Your task to perform on an android device: change notification settings in the gmail app Image 0: 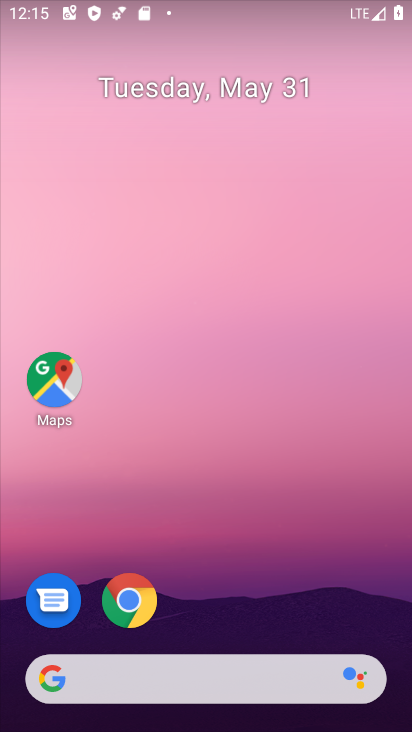
Step 0: drag from (219, 676) to (219, 124)
Your task to perform on an android device: change notification settings in the gmail app Image 1: 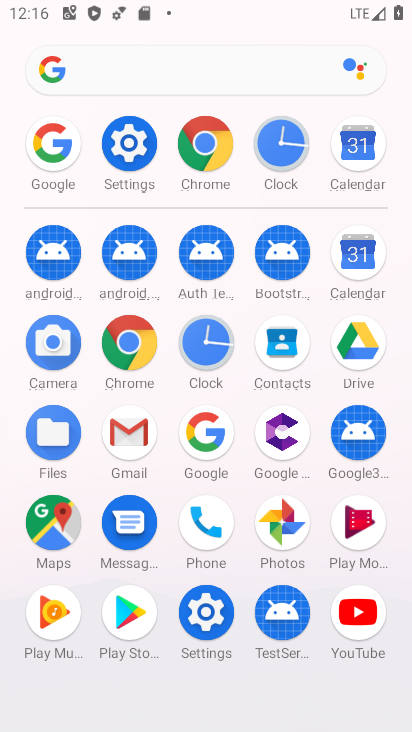
Step 1: click (131, 442)
Your task to perform on an android device: change notification settings in the gmail app Image 2: 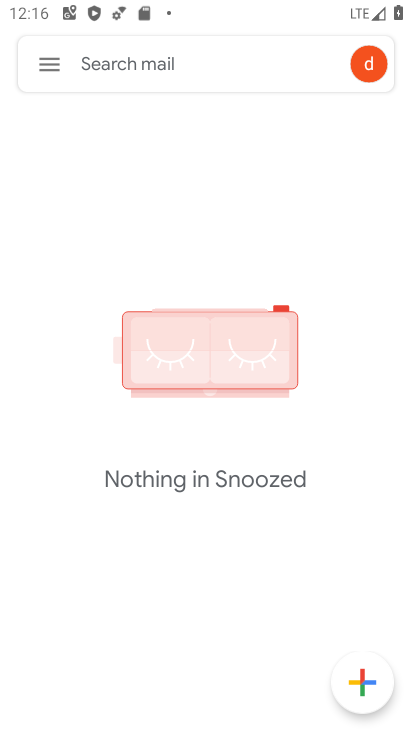
Step 2: click (44, 66)
Your task to perform on an android device: change notification settings in the gmail app Image 3: 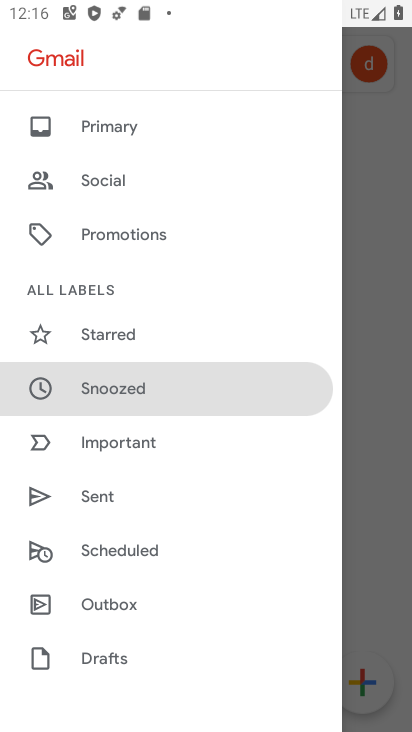
Step 3: drag from (159, 694) to (162, 224)
Your task to perform on an android device: change notification settings in the gmail app Image 4: 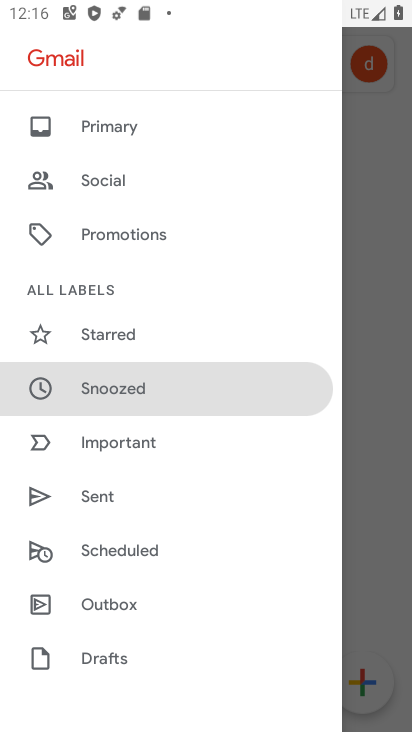
Step 4: drag from (165, 650) to (155, 301)
Your task to perform on an android device: change notification settings in the gmail app Image 5: 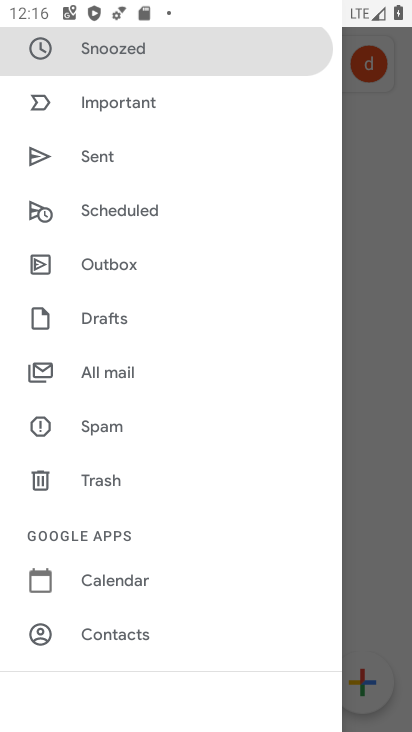
Step 5: drag from (123, 618) to (124, 569)
Your task to perform on an android device: change notification settings in the gmail app Image 6: 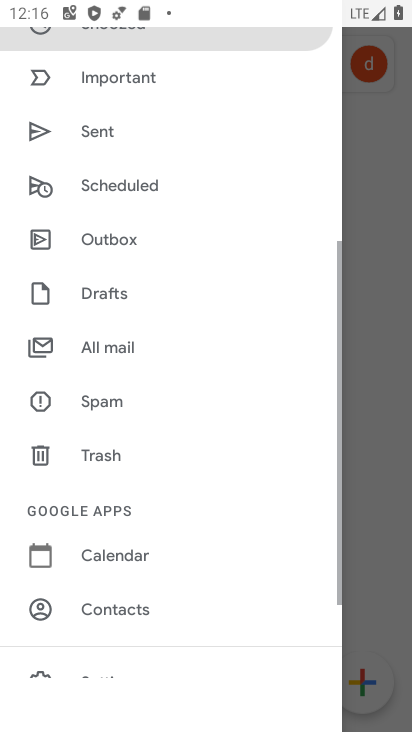
Step 6: drag from (126, 400) to (124, 171)
Your task to perform on an android device: change notification settings in the gmail app Image 7: 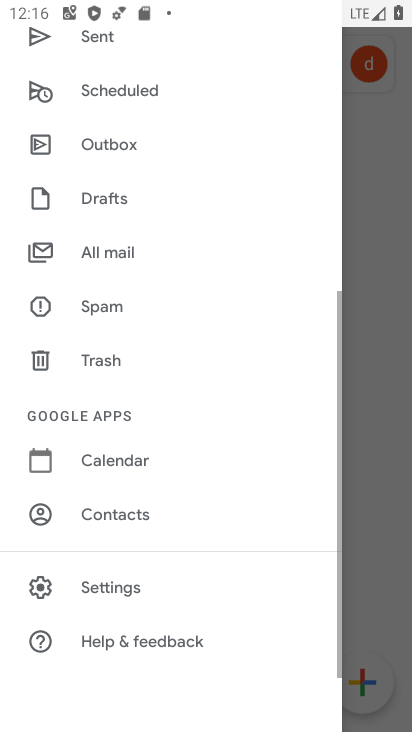
Step 7: click (119, 583)
Your task to perform on an android device: change notification settings in the gmail app Image 8: 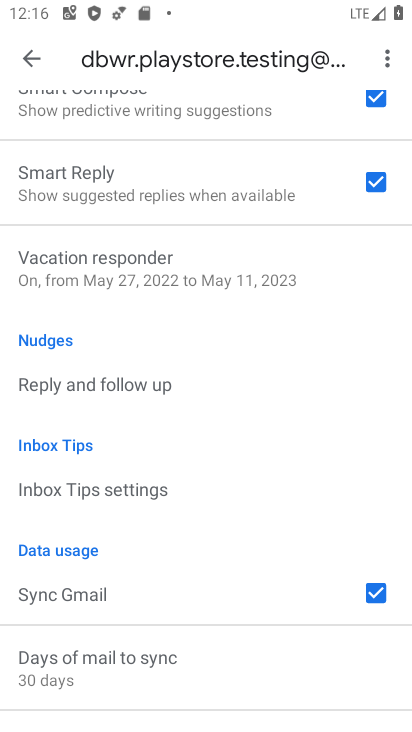
Step 8: drag from (157, 152) to (162, 639)
Your task to perform on an android device: change notification settings in the gmail app Image 9: 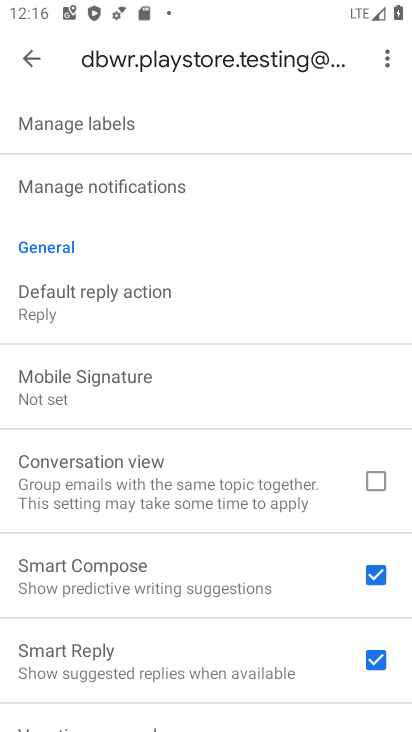
Step 9: drag from (198, 160) to (196, 534)
Your task to perform on an android device: change notification settings in the gmail app Image 10: 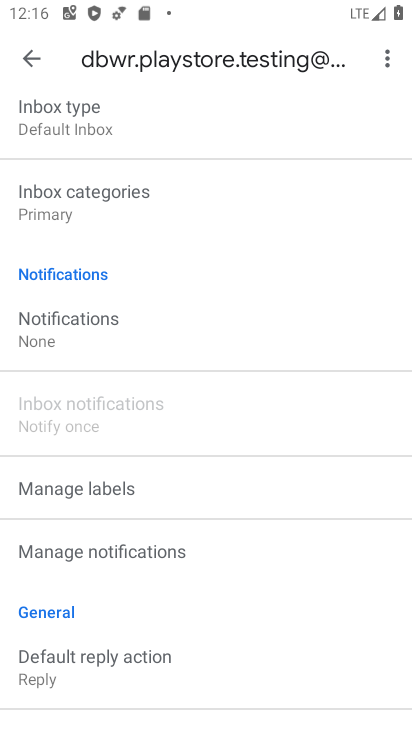
Step 10: click (58, 324)
Your task to perform on an android device: change notification settings in the gmail app Image 11: 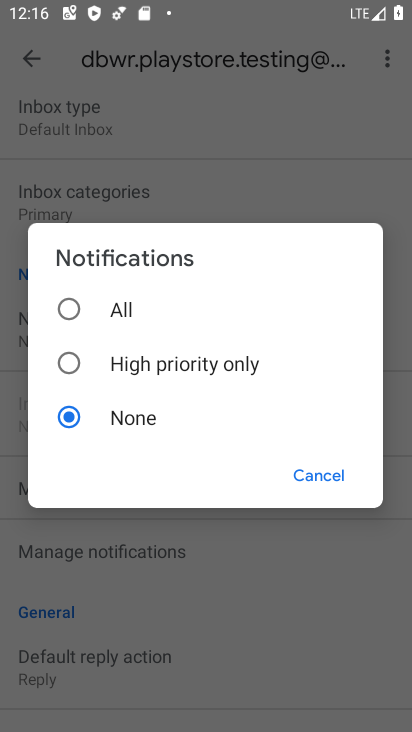
Step 11: click (65, 309)
Your task to perform on an android device: change notification settings in the gmail app Image 12: 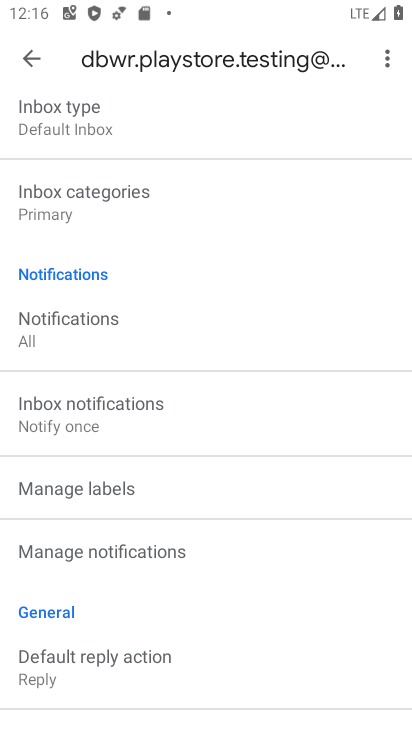
Step 12: task complete